Your task to perform on an android device: Check the settings for the Google Chrome app Image 0: 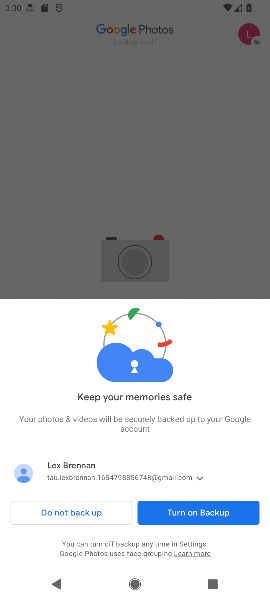
Step 0: press home button
Your task to perform on an android device: Check the settings for the Google Chrome app Image 1: 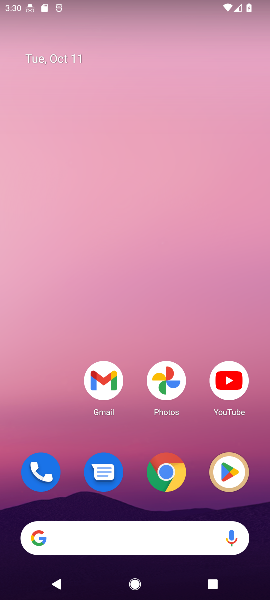
Step 1: click (170, 466)
Your task to perform on an android device: Check the settings for the Google Chrome app Image 2: 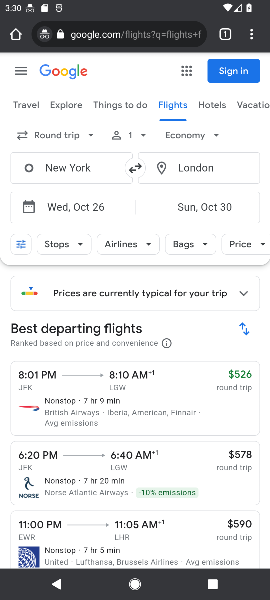
Step 2: click (260, 34)
Your task to perform on an android device: Check the settings for the Google Chrome app Image 3: 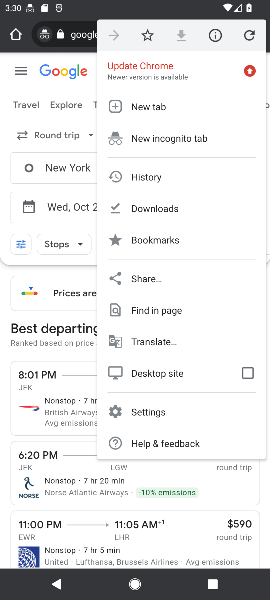
Step 3: click (123, 416)
Your task to perform on an android device: Check the settings for the Google Chrome app Image 4: 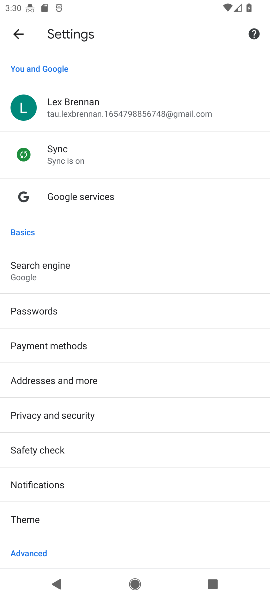
Step 4: task complete